Your task to perform on an android device: toggle location history Image 0: 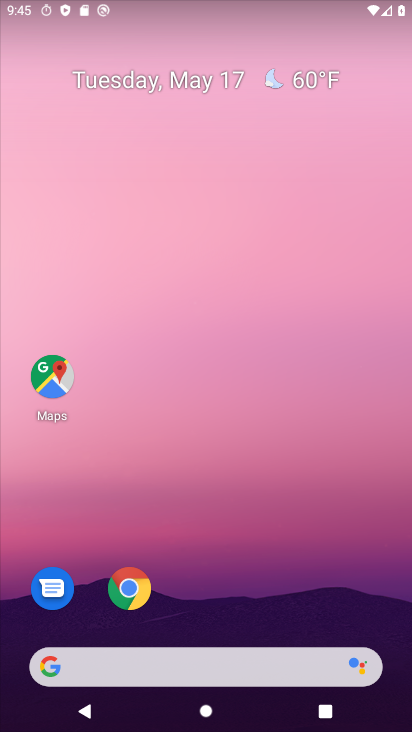
Step 0: drag from (294, 677) to (208, 139)
Your task to perform on an android device: toggle location history Image 1: 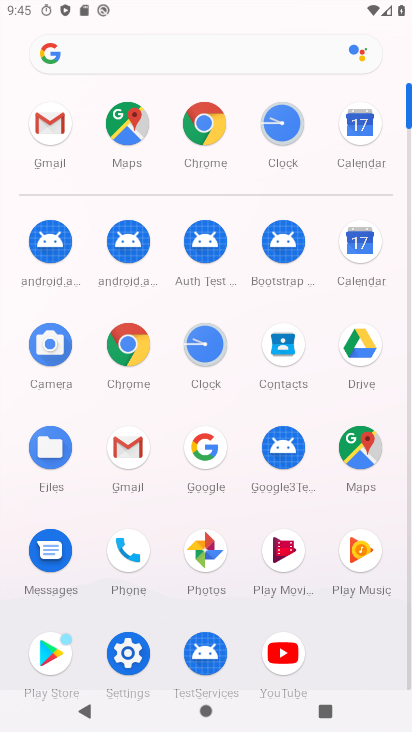
Step 1: click (359, 449)
Your task to perform on an android device: toggle location history Image 2: 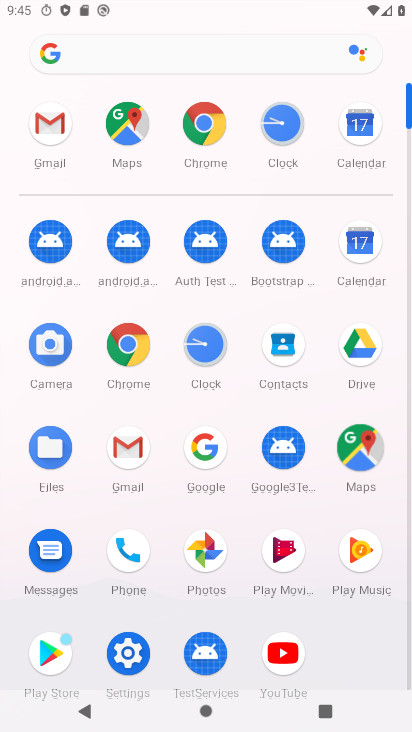
Step 2: click (359, 449)
Your task to perform on an android device: toggle location history Image 3: 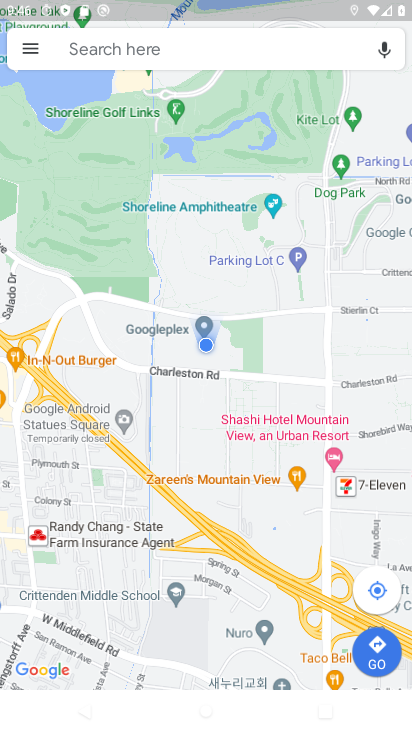
Step 3: click (34, 51)
Your task to perform on an android device: toggle location history Image 4: 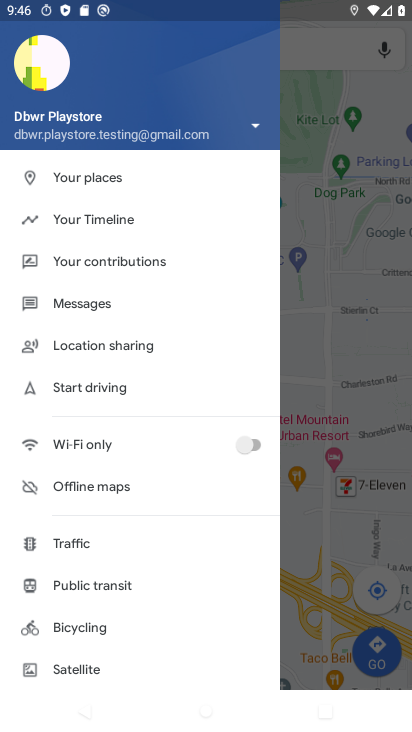
Step 4: click (89, 224)
Your task to perform on an android device: toggle location history Image 5: 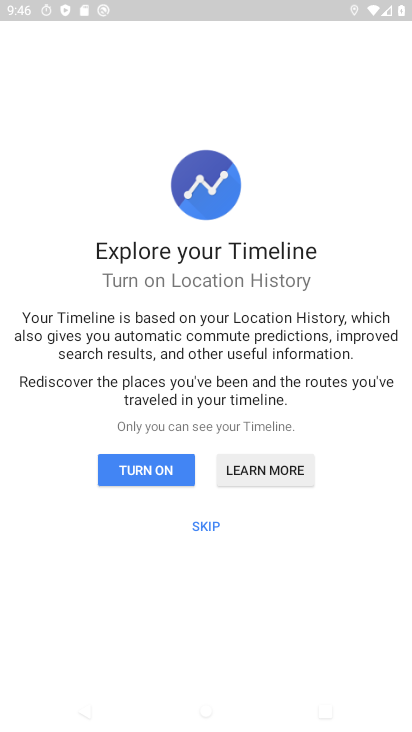
Step 5: click (144, 461)
Your task to perform on an android device: toggle location history Image 6: 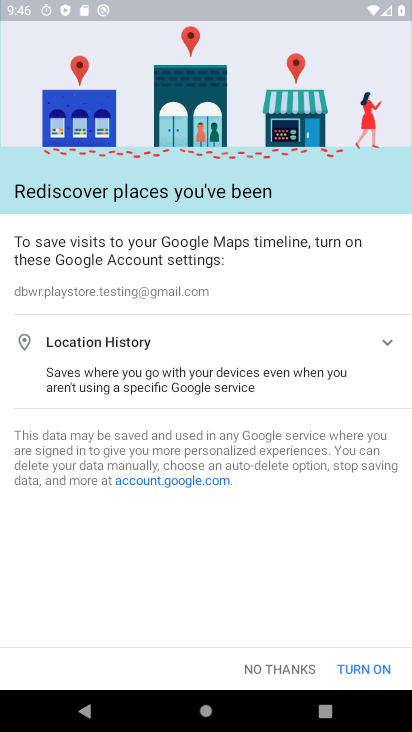
Step 6: click (377, 664)
Your task to perform on an android device: toggle location history Image 7: 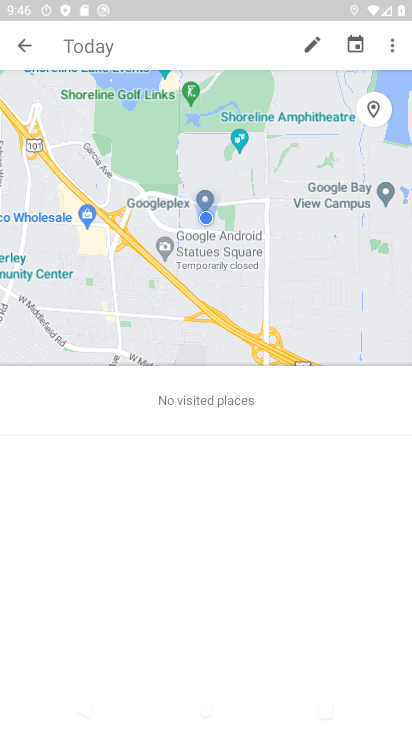
Step 7: press back button
Your task to perform on an android device: toggle location history Image 8: 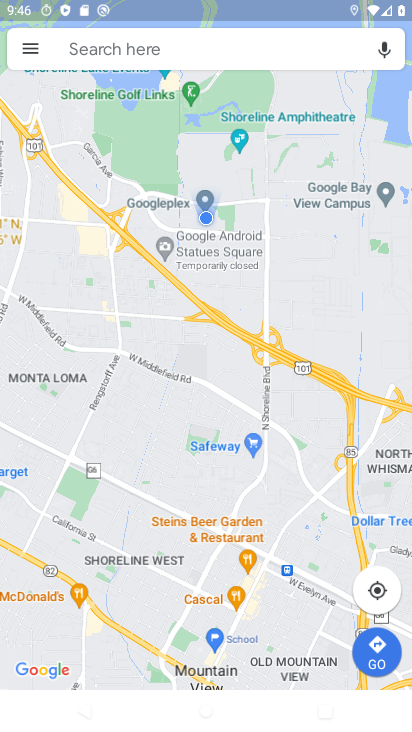
Step 8: click (30, 53)
Your task to perform on an android device: toggle location history Image 9: 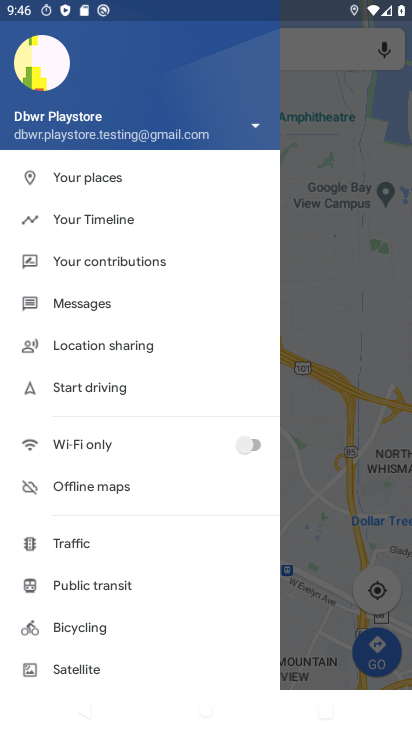
Step 9: click (80, 215)
Your task to perform on an android device: toggle location history Image 10: 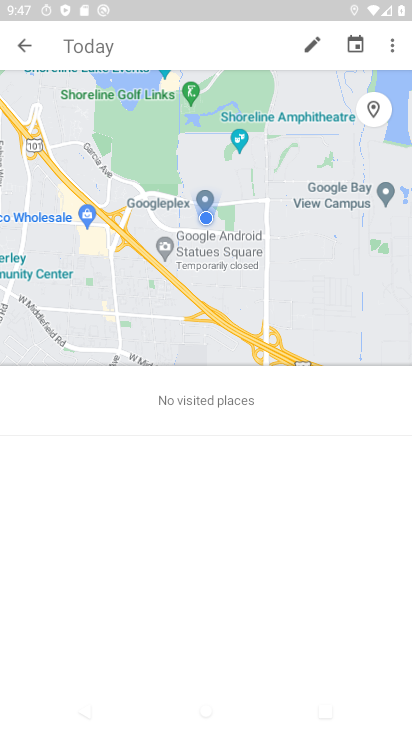
Step 10: click (393, 51)
Your task to perform on an android device: toggle location history Image 11: 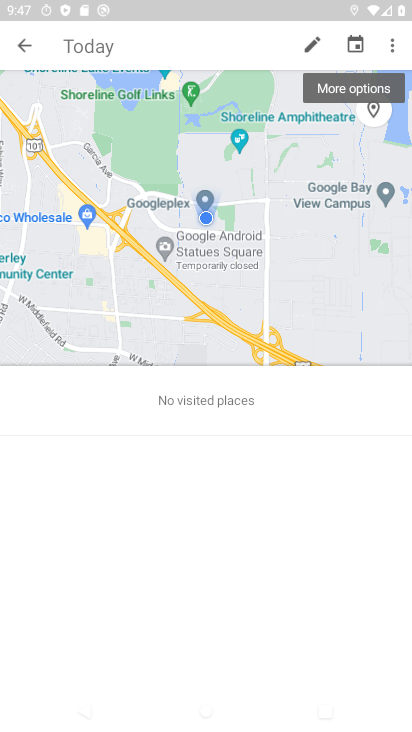
Step 11: click (392, 50)
Your task to perform on an android device: toggle location history Image 12: 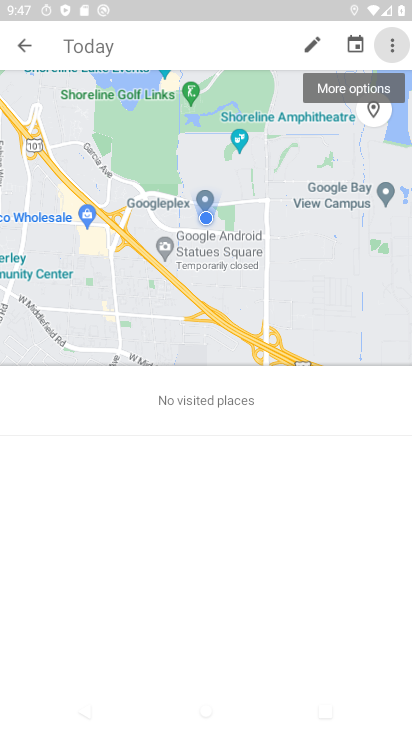
Step 12: click (392, 50)
Your task to perform on an android device: toggle location history Image 13: 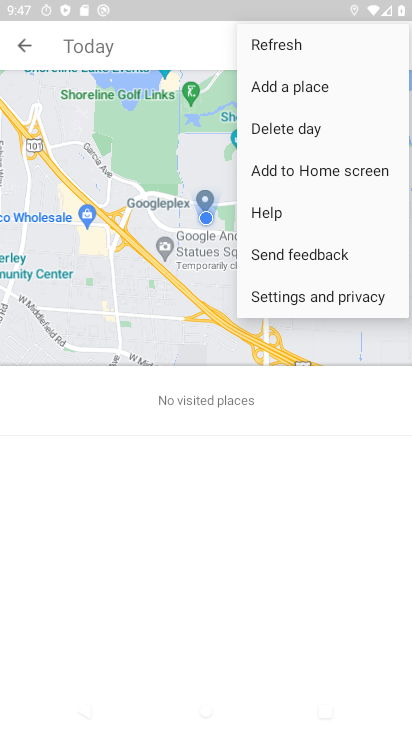
Step 13: click (390, 53)
Your task to perform on an android device: toggle location history Image 14: 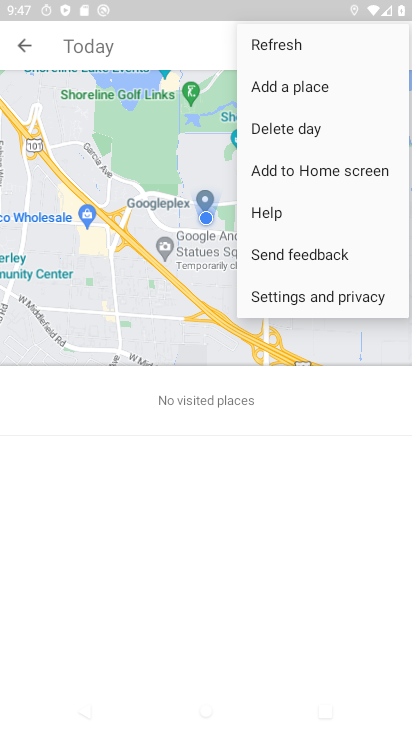
Step 14: click (390, 53)
Your task to perform on an android device: toggle location history Image 15: 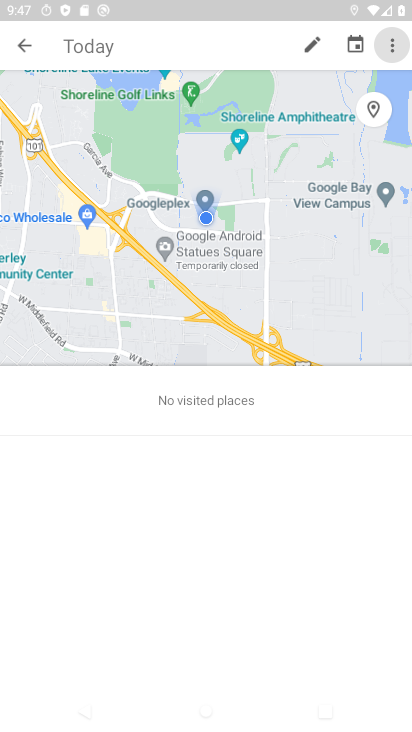
Step 15: click (298, 282)
Your task to perform on an android device: toggle location history Image 16: 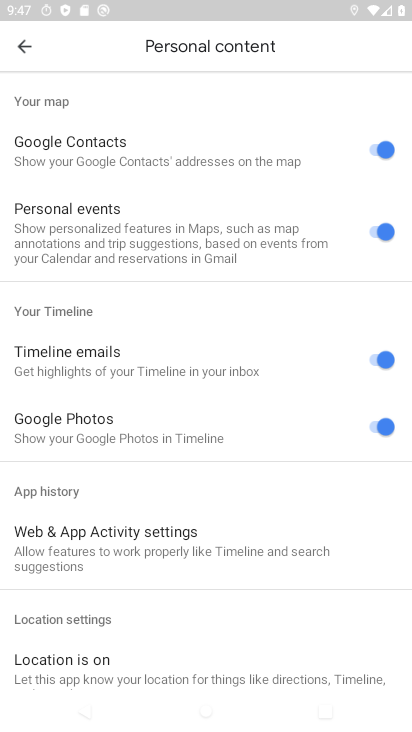
Step 16: drag from (158, 621) to (53, 67)
Your task to perform on an android device: toggle location history Image 17: 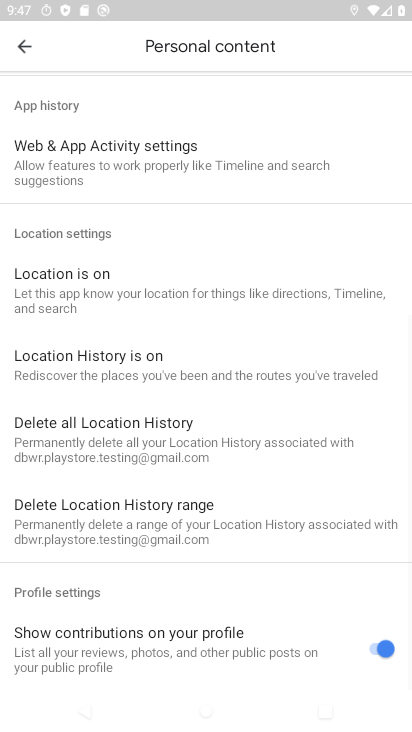
Step 17: drag from (112, 422) to (176, 166)
Your task to perform on an android device: toggle location history Image 18: 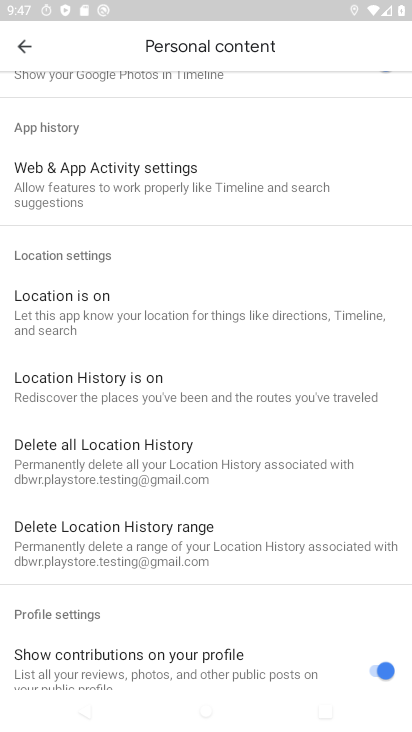
Step 18: click (109, 378)
Your task to perform on an android device: toggle location history Image 19: 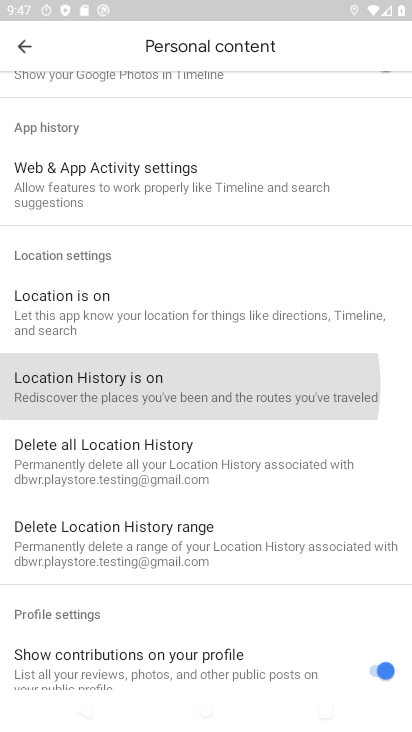
Step 19: click (109, 378)
Your task to perform on an android device: toggle location history Image 20: 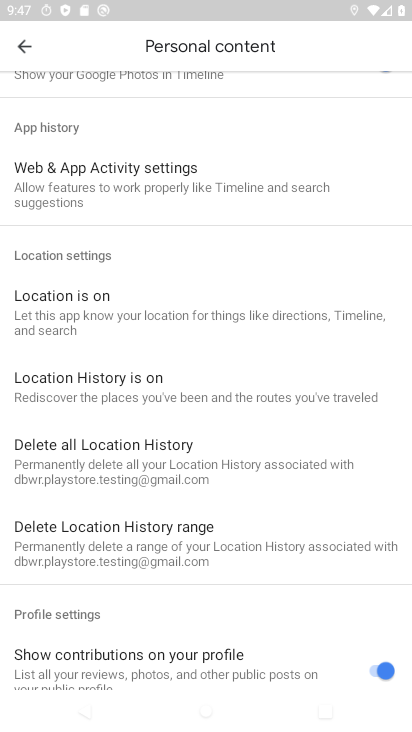
Step 20: click (109, 378)
Your task to perform on an android device: toggle location history Image 21: 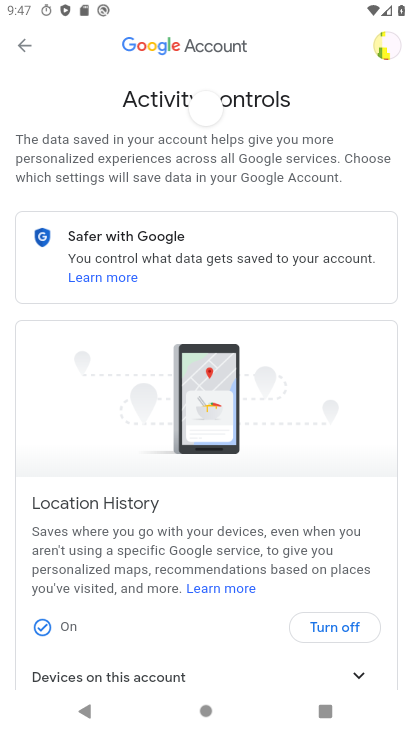
Step 21: task complete